Your task to perform on an android device: open sync settings in chrome Image 0: 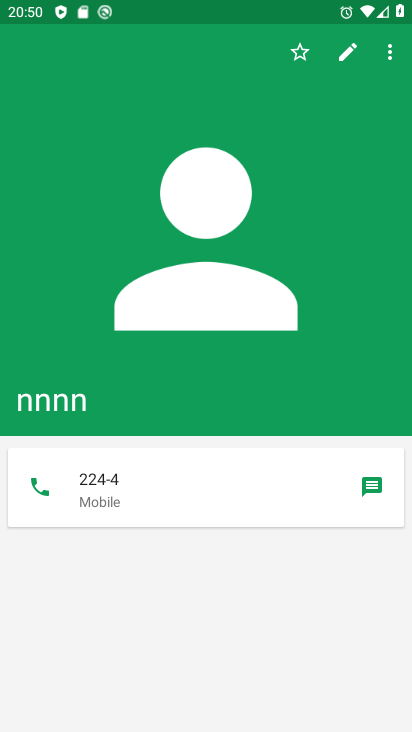
Step 0: press home button
Your task to perform on an android device: open sync settings in chrome Image 1: 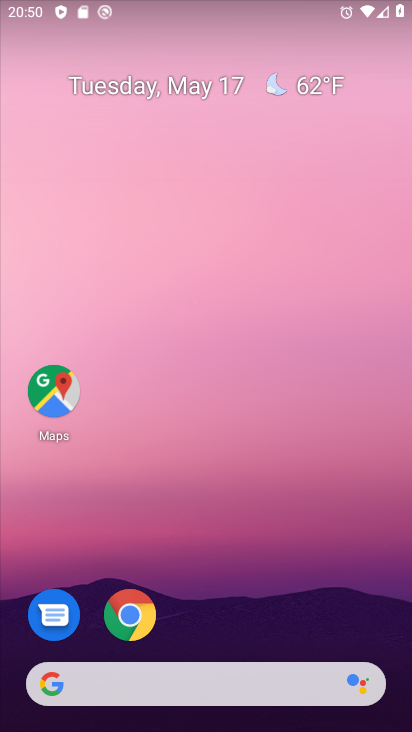
Step 1: click (141, 603)
Your task to perform on an android device: open sync settings in chrome Image 2: 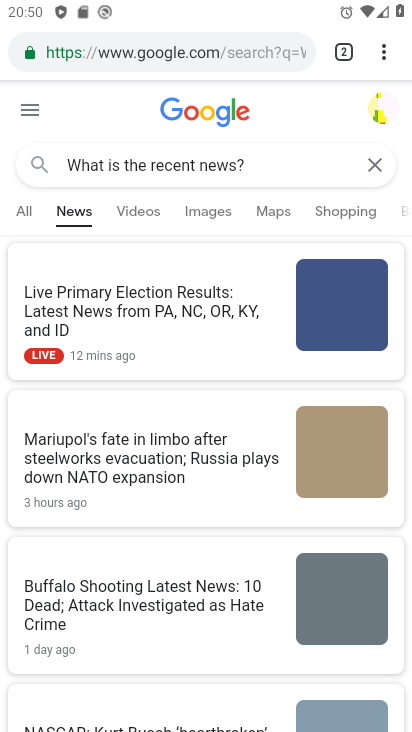
Step 2: drag from (378, 53) to (202, 575)
Your task to perform on an android device: open sync settings in chrome Image 3: 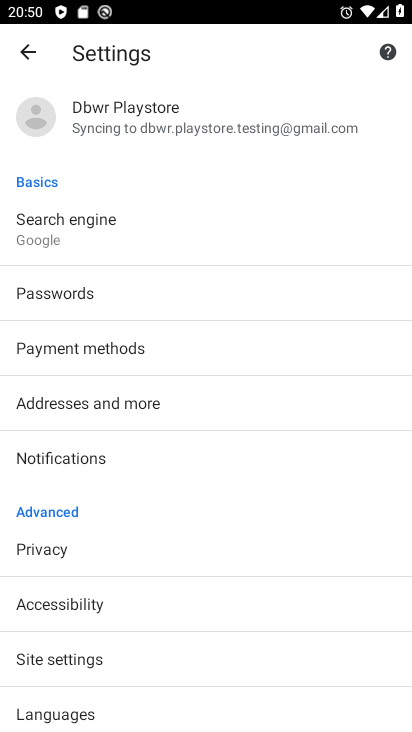
Step 3: click (48, 130)
Your task to perform on an android device: open sync settings in chrome Image 4: 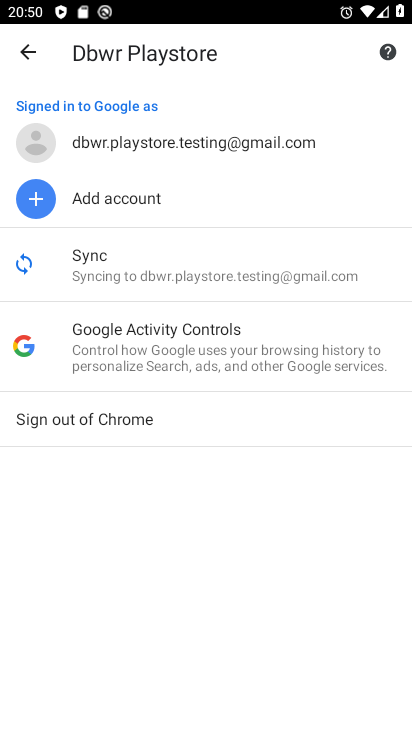
Step 4: click (107, 260)
Your task to perform on an android device: open sync settings in chrome Image 5: 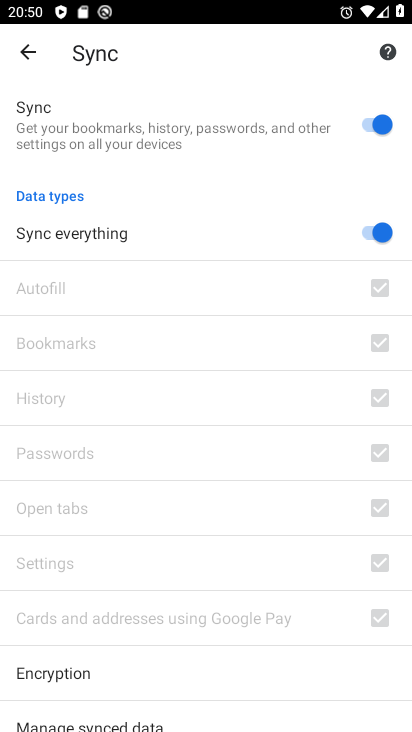
Step 5: task complete